Your task to perform on an android device: Search for flights from Tokyo to NYC Image 0: 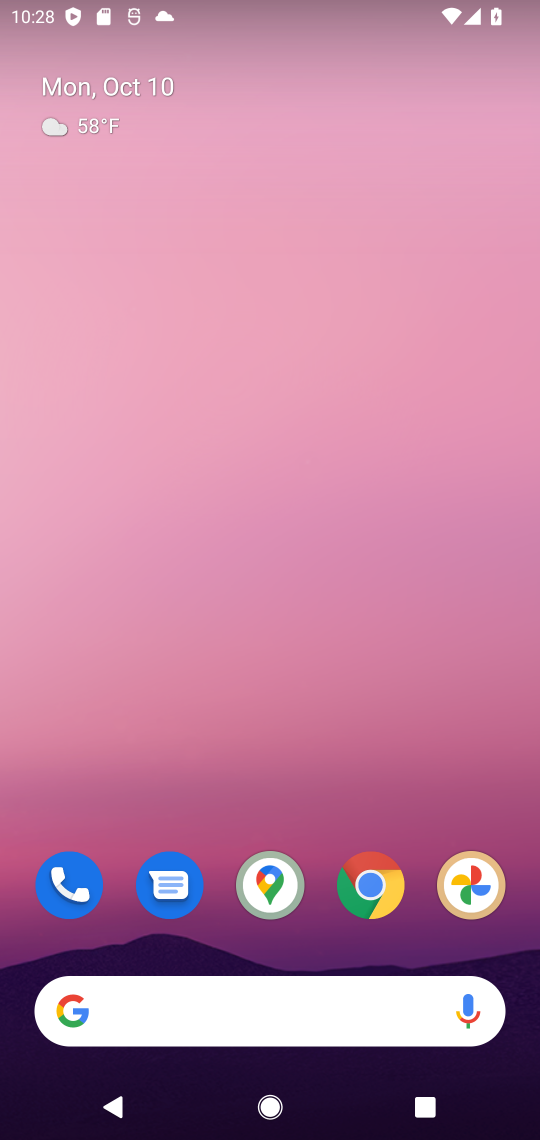
Step 0: click (371, 874)
Your task to perform on an android device: Search for flights from Tokyo to NYC Image 1: 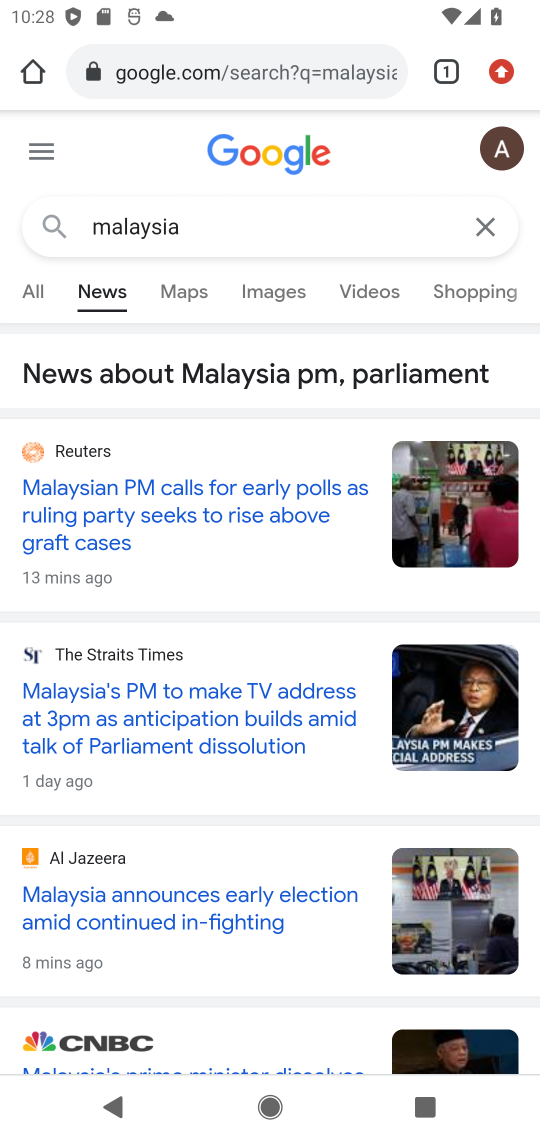
Step 1: click (250, 80)
Your task to perform on an android device: Search for flights from Tokyo to NYC Image 2: 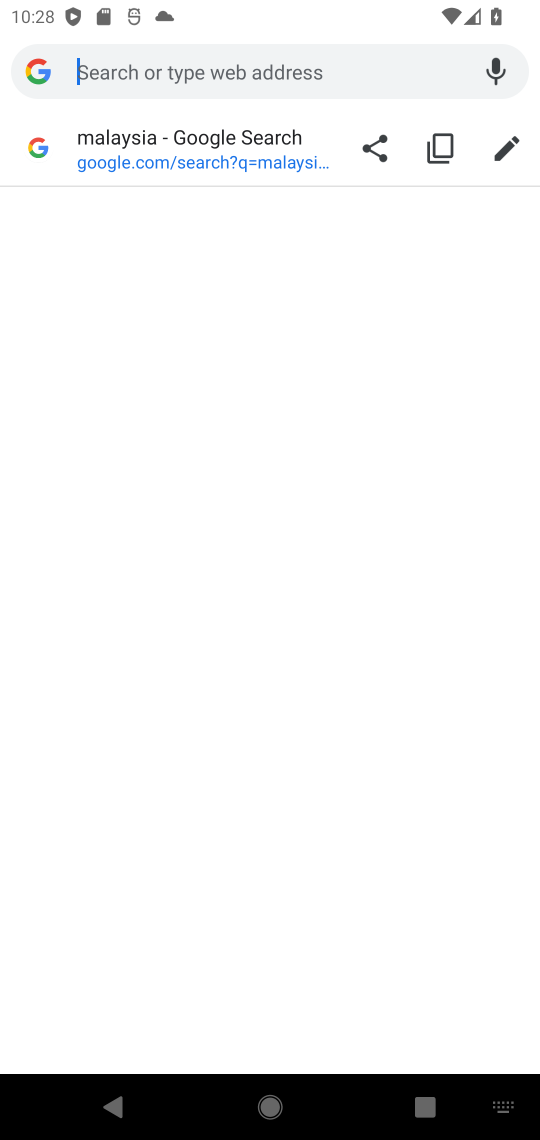
Step 2: type "tokyo to nyc flights"
Your task to perform on an android device: Search for flights from Tokyo to NYC Image 3: 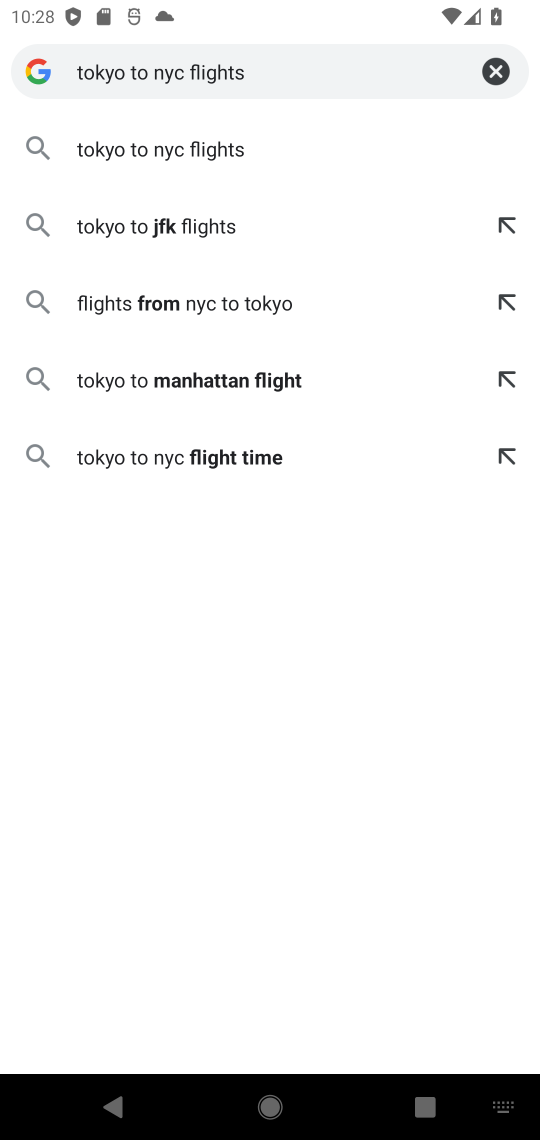
Step 3: click (260, 143)
Your task to perform on an android device: Search for flights from Tokyo to NYC Image 4: 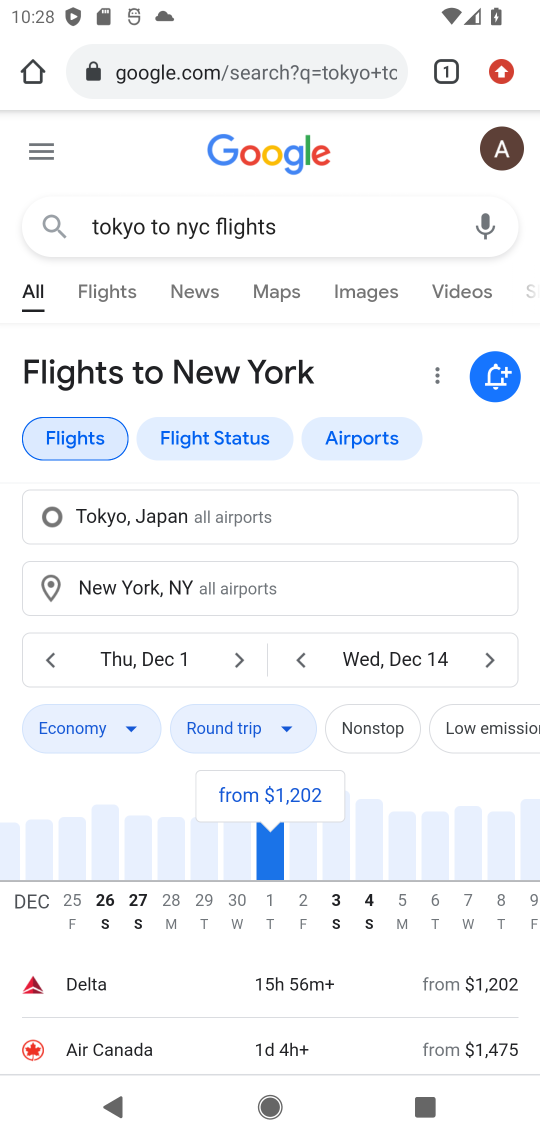
Step 4: task complete